Your task to perform on an android device: turn pop-ups on in chrome Image 0: 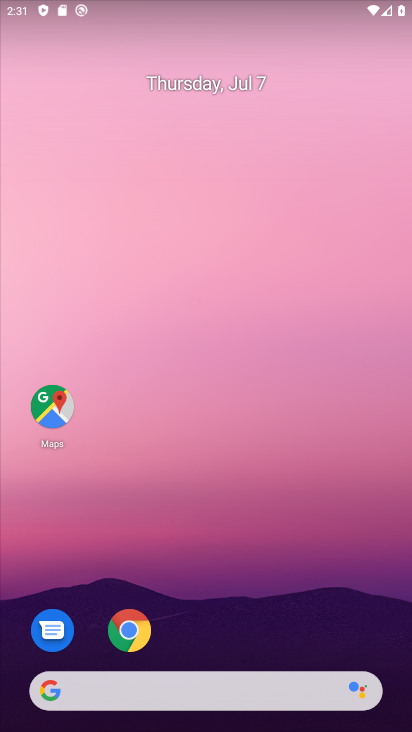
Step 0: drag from (257, 616) to (260, 274)
Your task to perform on an android device: turn pop-ups on in chrome Image 1: 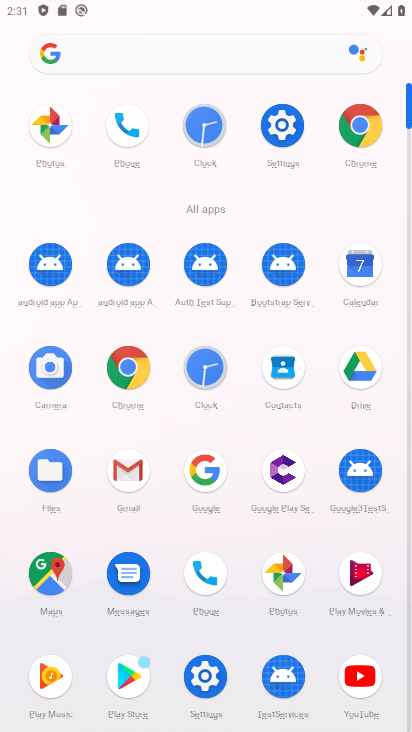
Step 1: click (368, 124)
Your task to perform on an android device: turn pop-ups on in chrome Image 2: 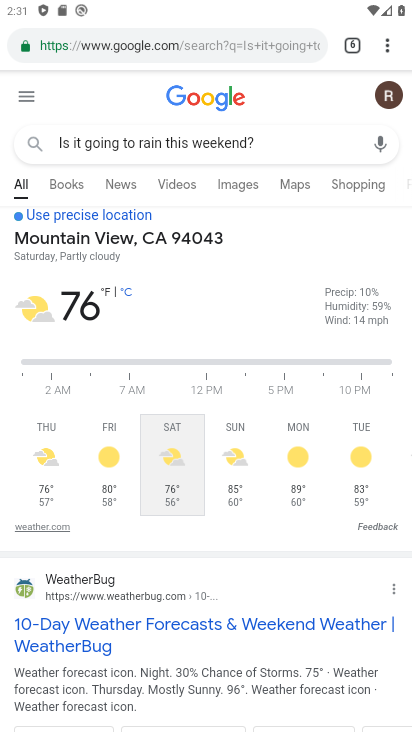
Step 2: click (385, 38)
Your task to perform on an android device: turn pop-ups on in chrome Image 3: 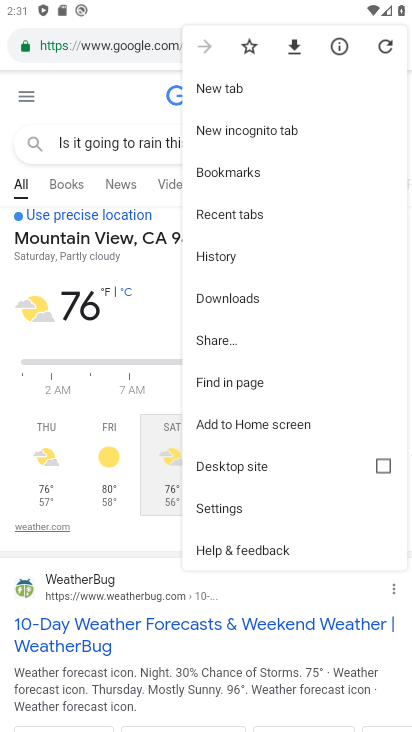
Step 3: click (249, 496)
Your task to perform on an android device: turn pop-ups on in chrome Image 4: 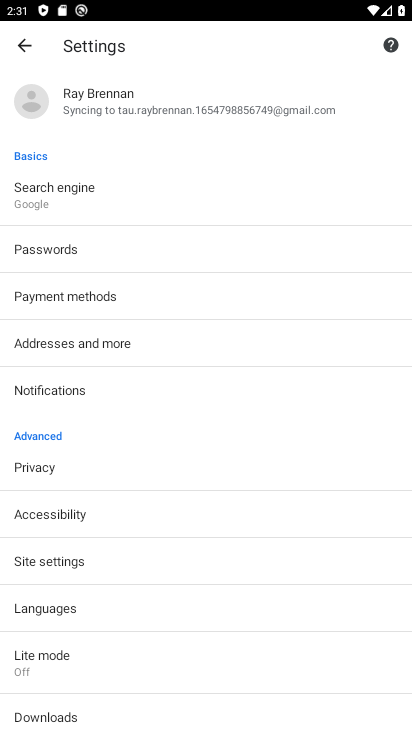
Step 4: drag from (203, 610) to (241, 230)
Your task to perform on an android device: turn pop-ups on in chrome Image 5: 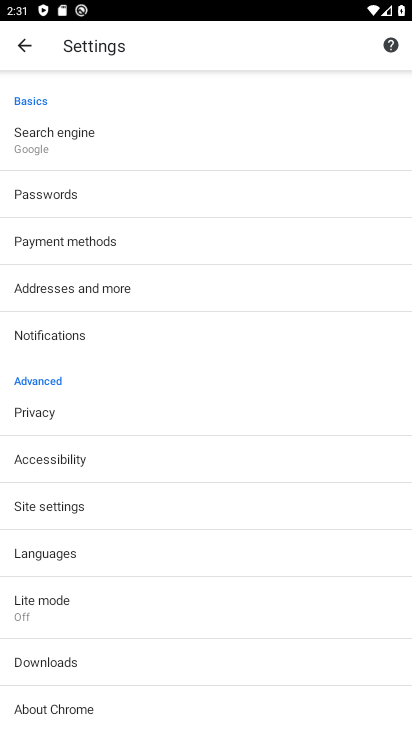
Step 5: click (102, 510)
Your task to perform on an android device: turn pop-ups on in chrome Image 6: 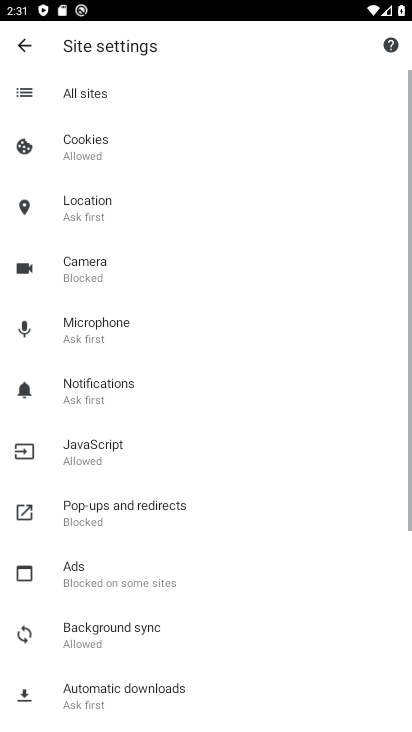
Step 6: click (102, 510)
Your task to perform on an android device: turn pop-ups on in chrome Image 7: 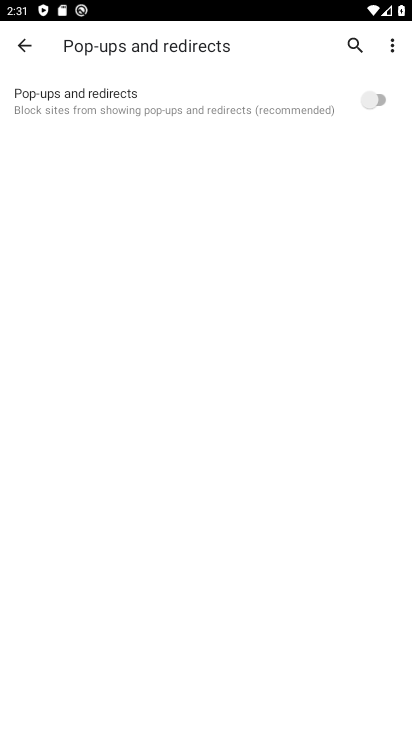
Step 7: click (369, 95)
Your task to perform on an android device: turn pop-ups on in chrome Image 8: 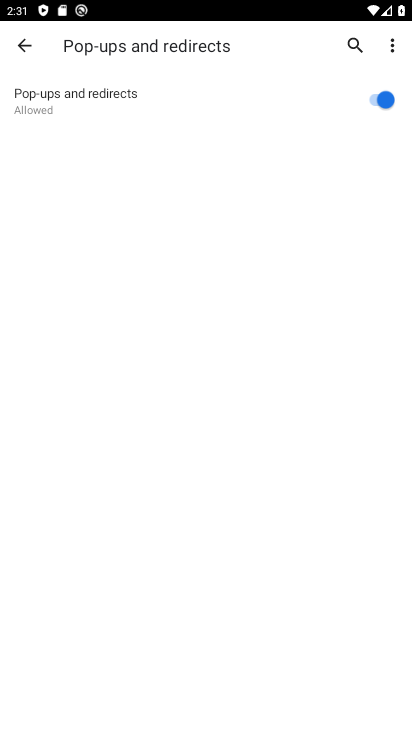
Step 8: task complete